Your task to perform on an android device: Open maps Image 0: 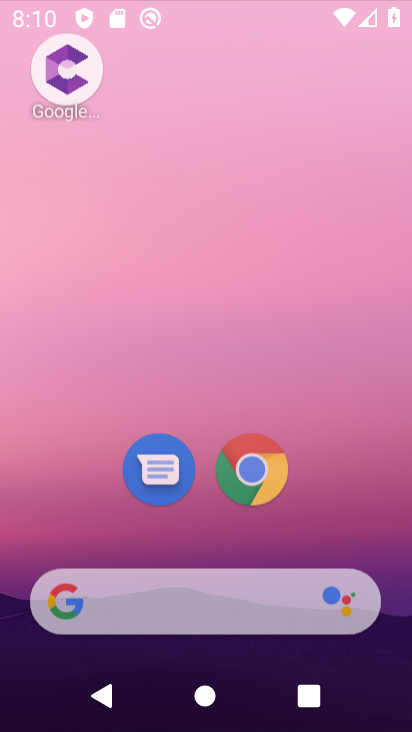
Step 0: click (170, 46)
Your task to perform on an android device: Open maps Image 1: 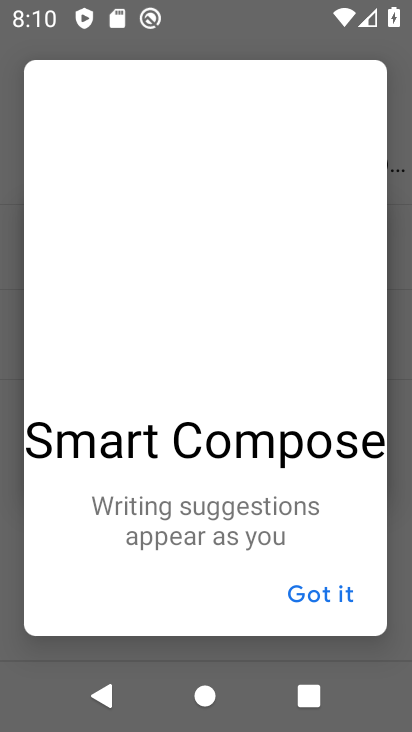
Step 1: click (303, 596)
Your task to perform on an android device: Open maps Image 2: 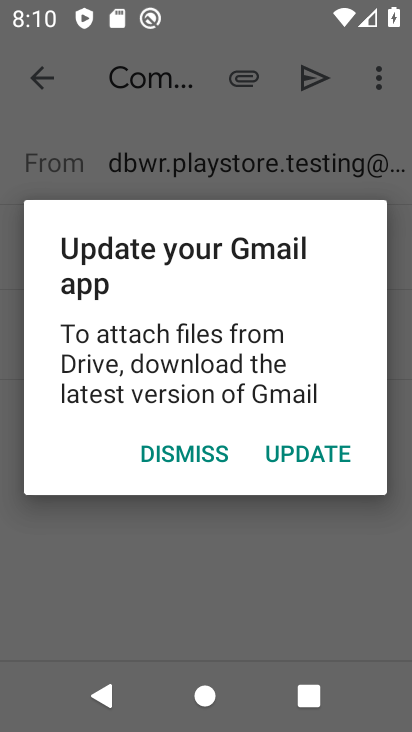
Step 2: click (196, 447)
Your task to perform on an android device: Open maps Image 3: 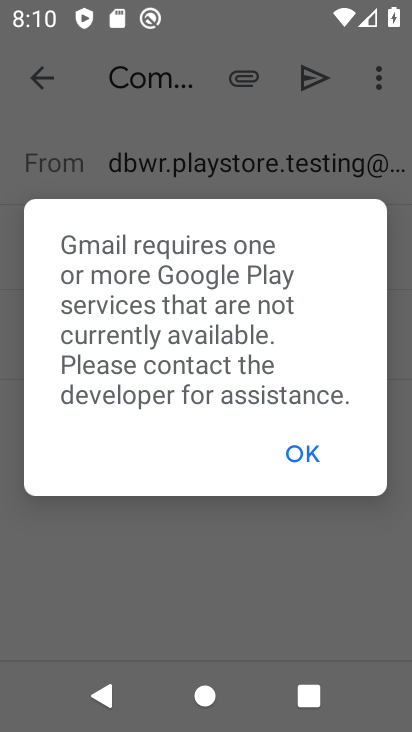
Step 3: click (293, 450)
Your task to perform on an android device: Open maps Image 4: 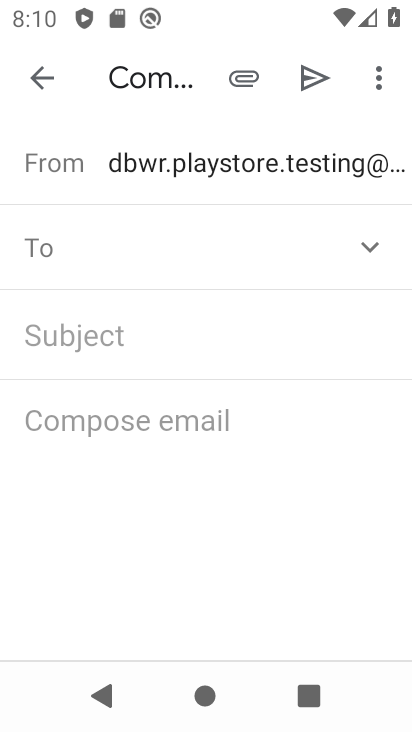
Step 4: click (35, 75)
Your task to perform on an android device: Open maps Image 5: 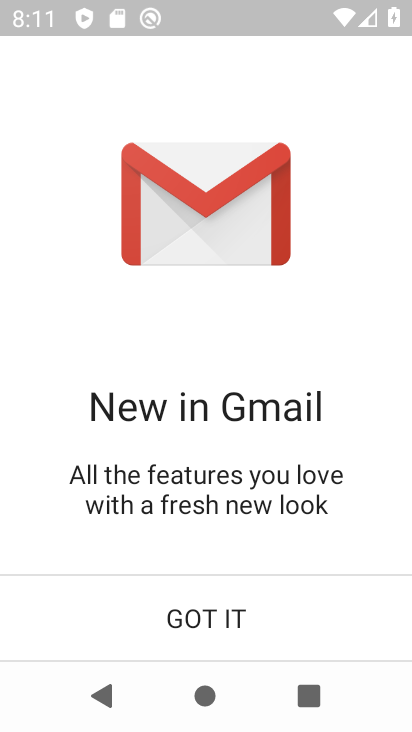
Step 5: click (204, 600)
Your task to perform on an android device: Open maps Image 6: 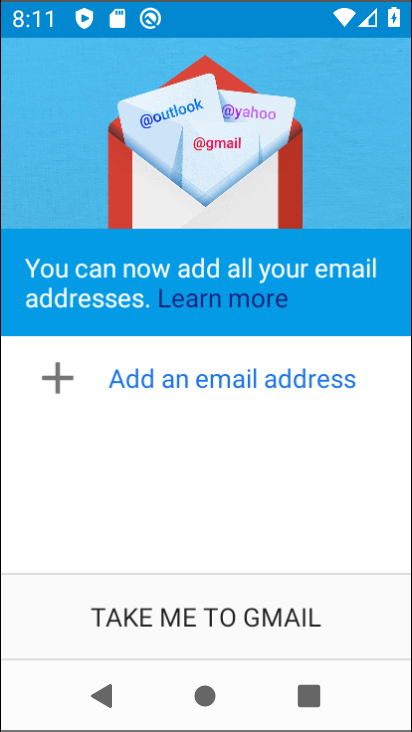
Step 6: click (220, 615)
Your task to perform on an android device: Open maps Image 7: 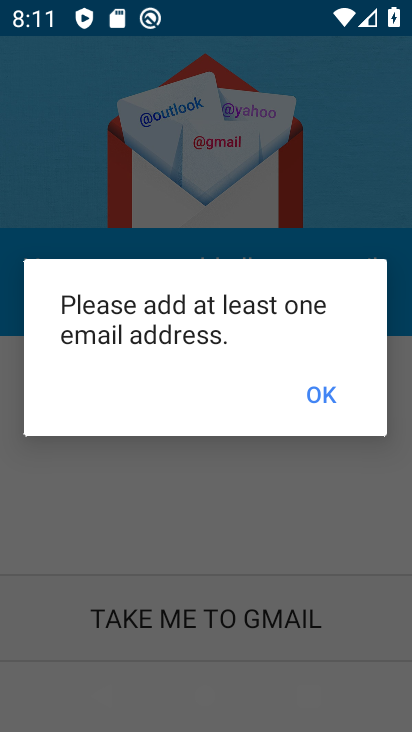
Step 7: click (315, 380)
Your task to perform on an android device: Open maps Image 8: 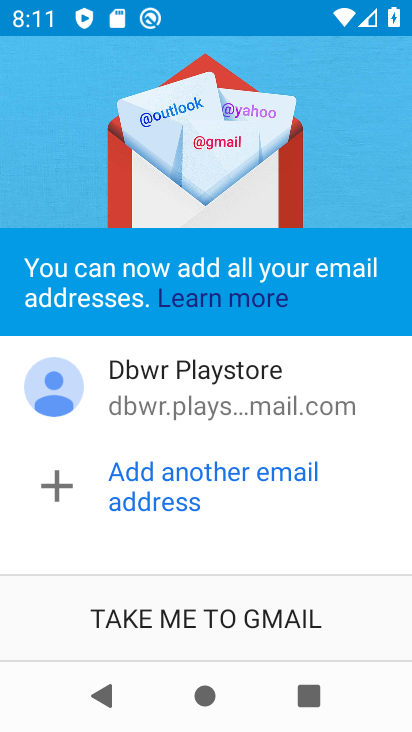
Step 8: press back button
Your task to perform on an android device: Open maps Image 9: 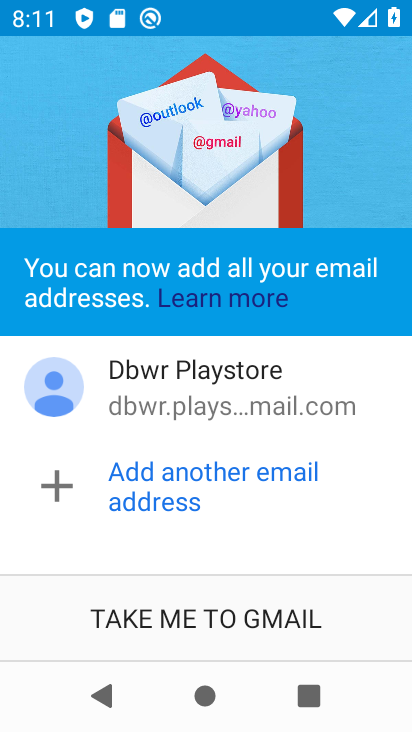
Step 9: press back button
Your task to perform on an android device: Open maps Image 10: 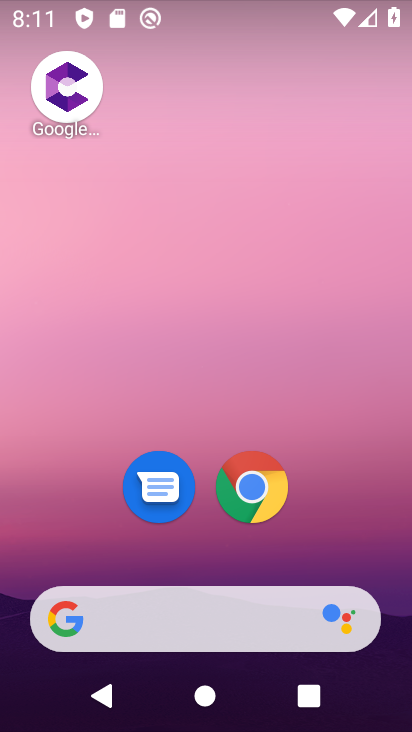
Step 10: drag from (240, 681) to (65, 167)
Your task to perform on an android device: Open maps Image 11: 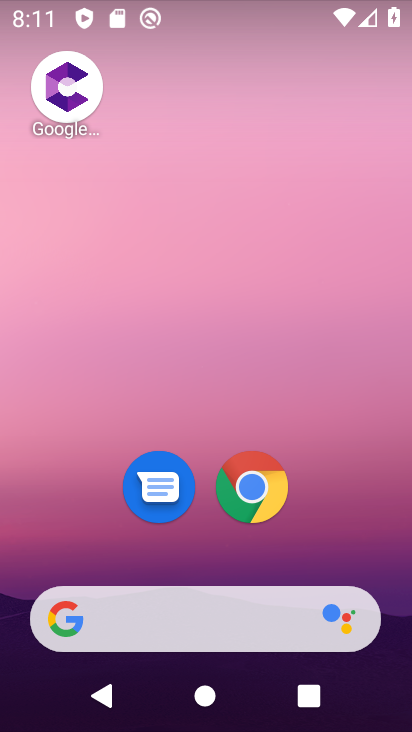
Step 11: drag from (280, 611) to (234, 28)
Your task to perform on an android device: Open maps Image 12: 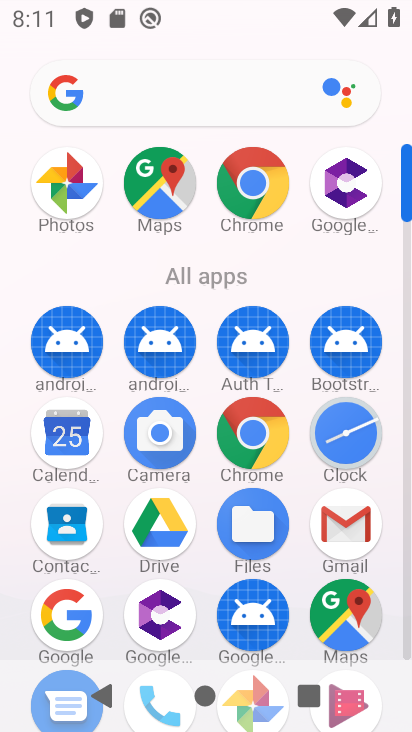
Step 12: click (349, 608)
Your task to perform on an android device: Open maps Image 13: 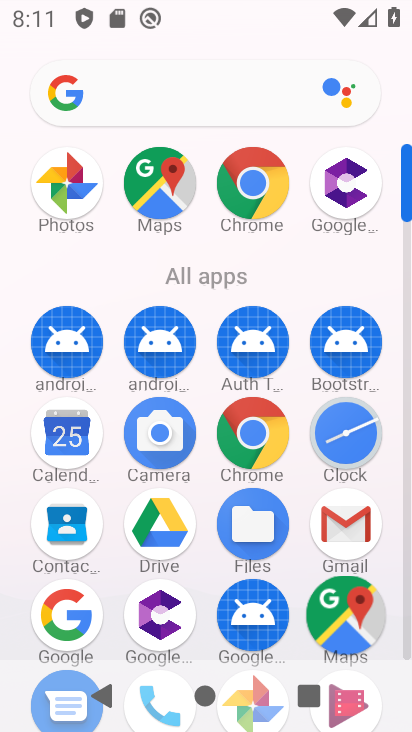
Step 13: click (344, 612)
Your task to perform on an android device: Open maps Image 14: 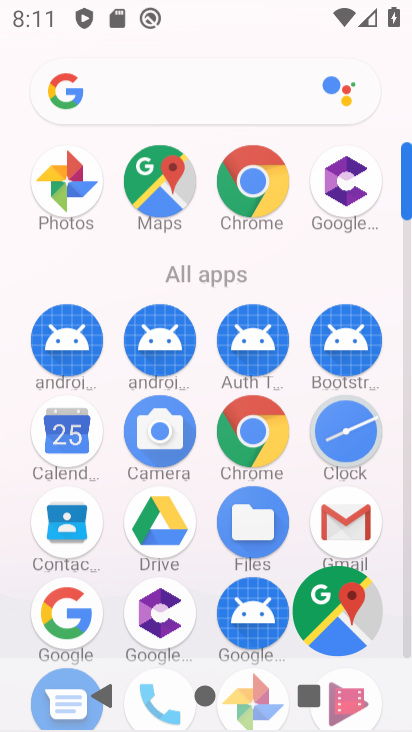
Step 14: click (344, 612)
Your task to perform on an android device: Open maps Image 15: 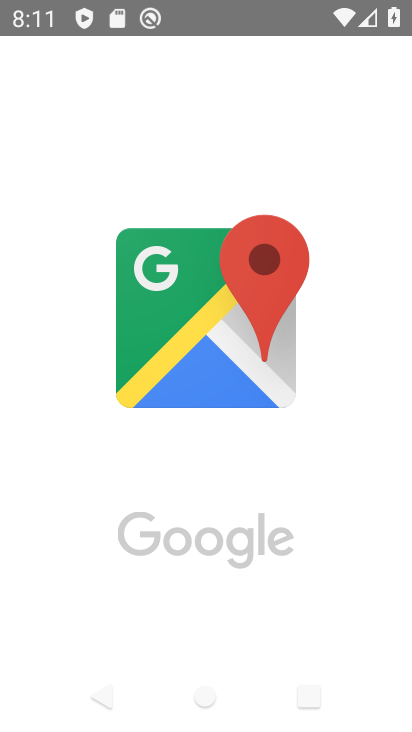
Step 15: click (344, 613)
Your task to perform on an android device: Open maps Image 16: 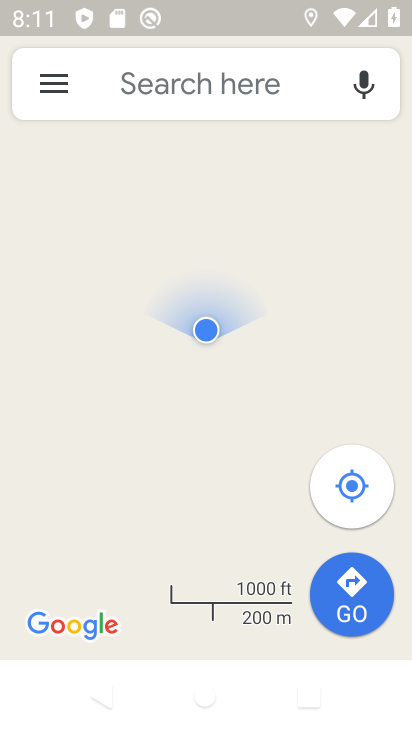
Step 16: task complete